Your task to perform on an android device: Show me popular videos on Youtube Image 0: 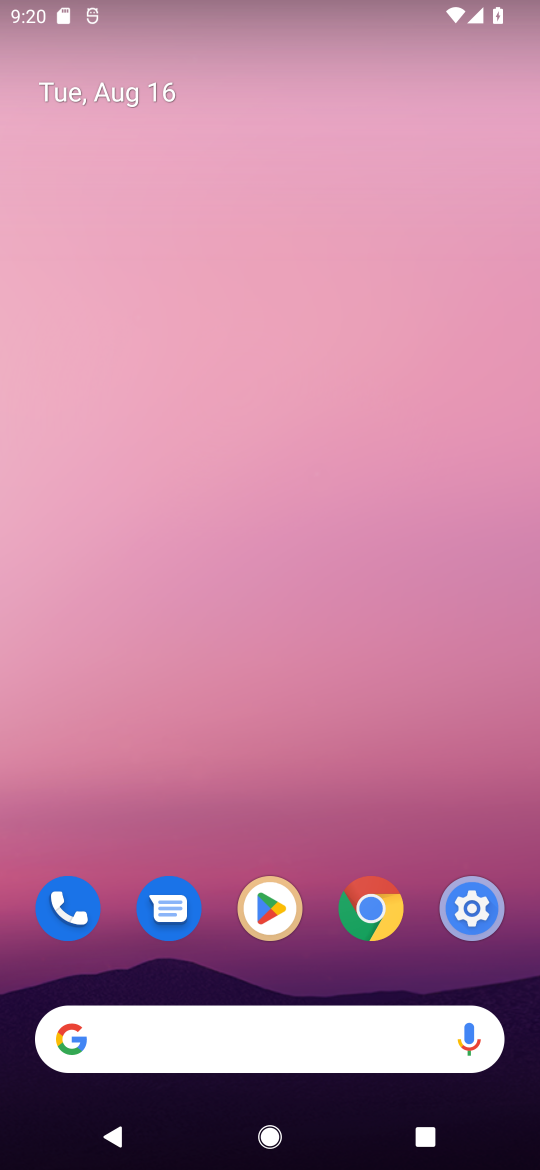
Step 0: drag from (462, 1053) to (539, 337)
Your task to perform on an android device: Show me popular videos on Youtube Image 1: 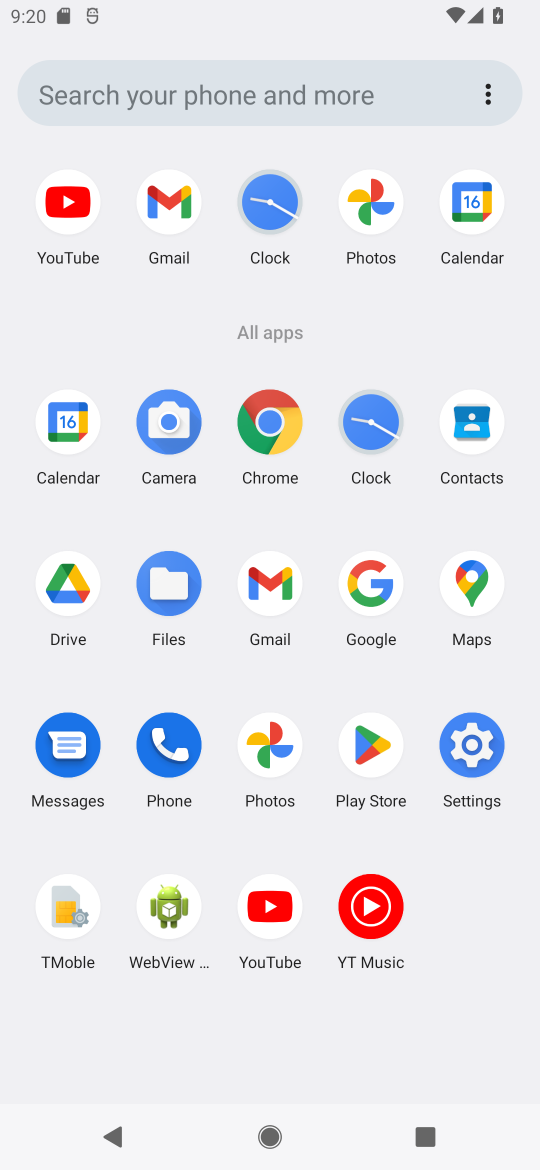
Step 1: click (264, 907)
Your task to perform on an android device: Show me popular videos on Youtube Image 2: 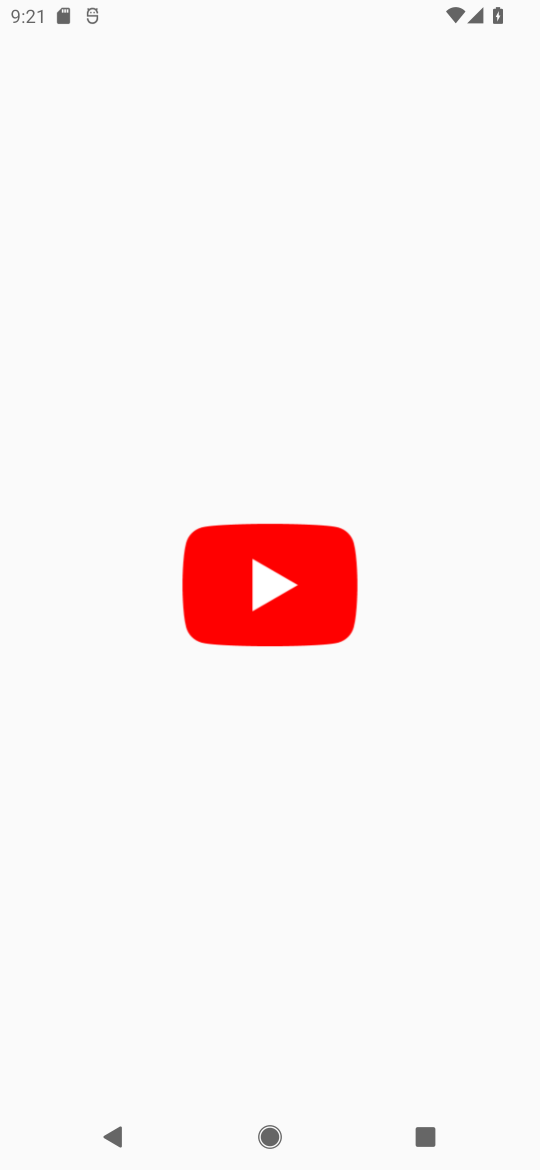
Step 2: click (285, 420)
Your task to perform on an android device: Show me popular videos on Youtube Image 3: 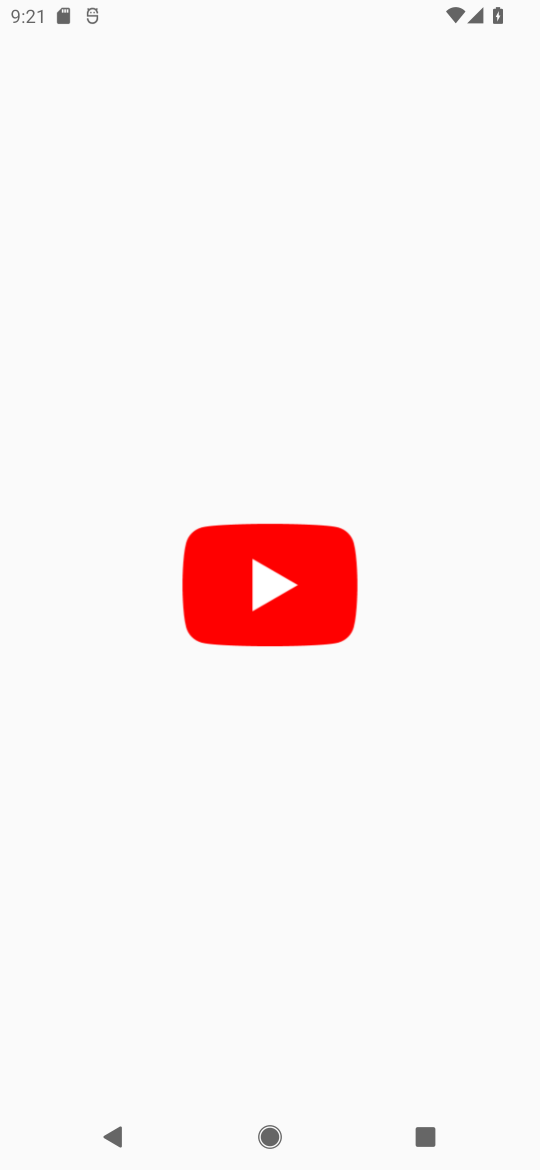
Step 3: click (247, 704)
Your task to perform on an android device: Show me popular videos on Youtube Image 4: 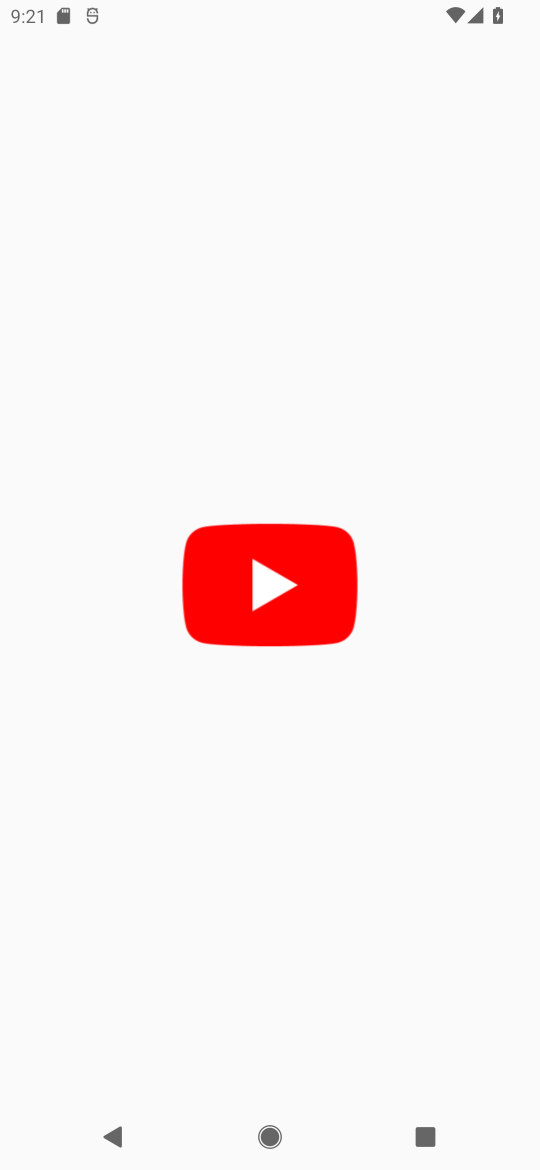
Step 4: task complete